Your task to perform on an android device: change text size in settings app Image 0: 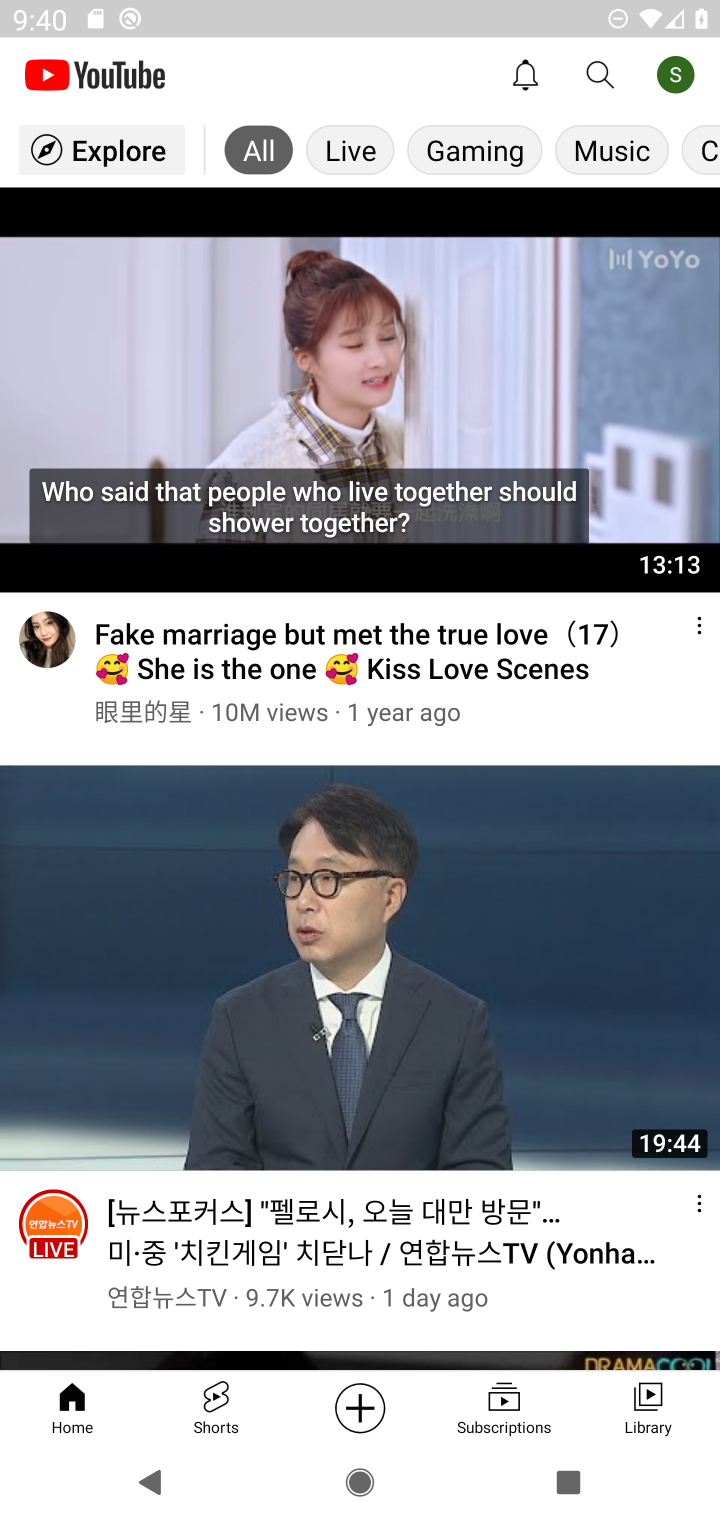
Step 0: press home button
Your task to perform on an android device: change text size in settings app Image 1: 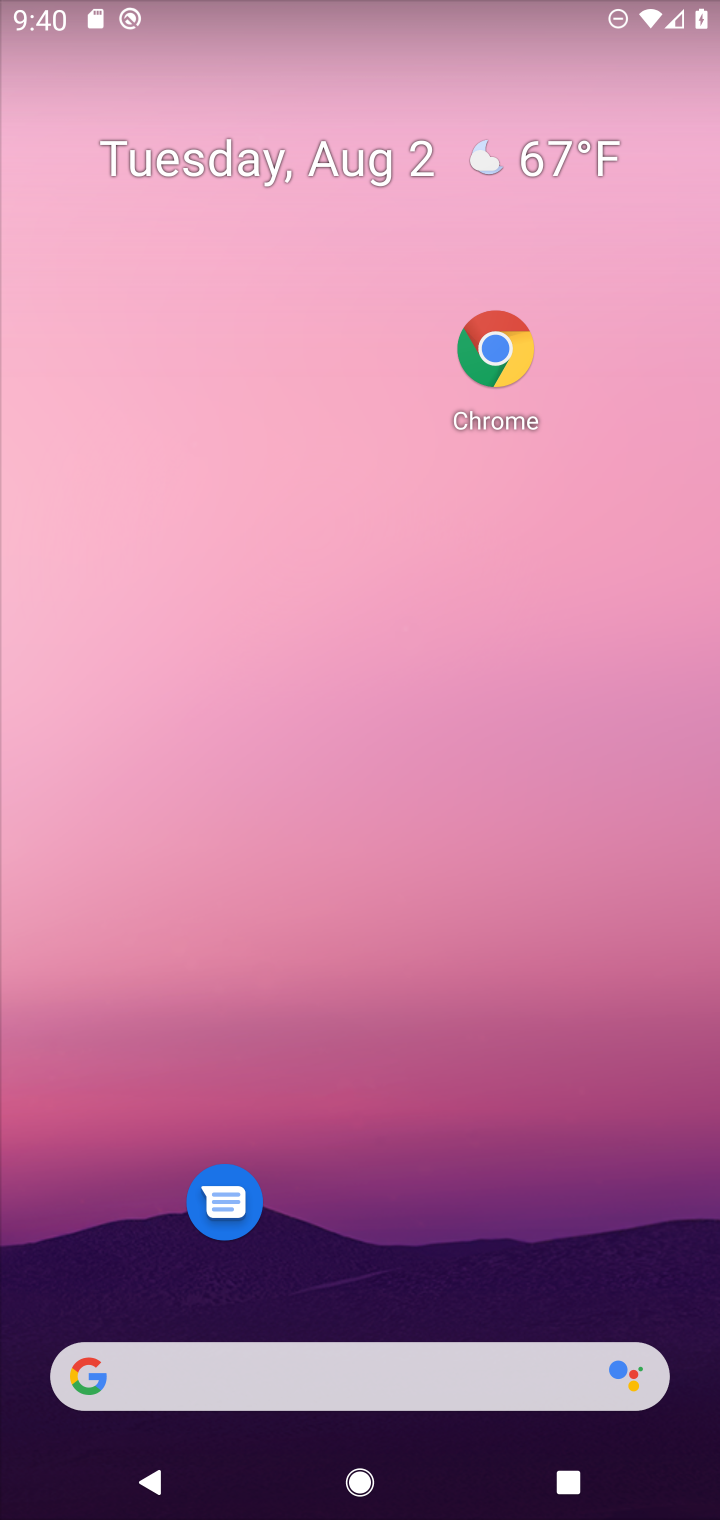
Step 1: drag from (385, 1281) to (396, 212)
Your task to perform on an android device: change text size in settings app Image 2: 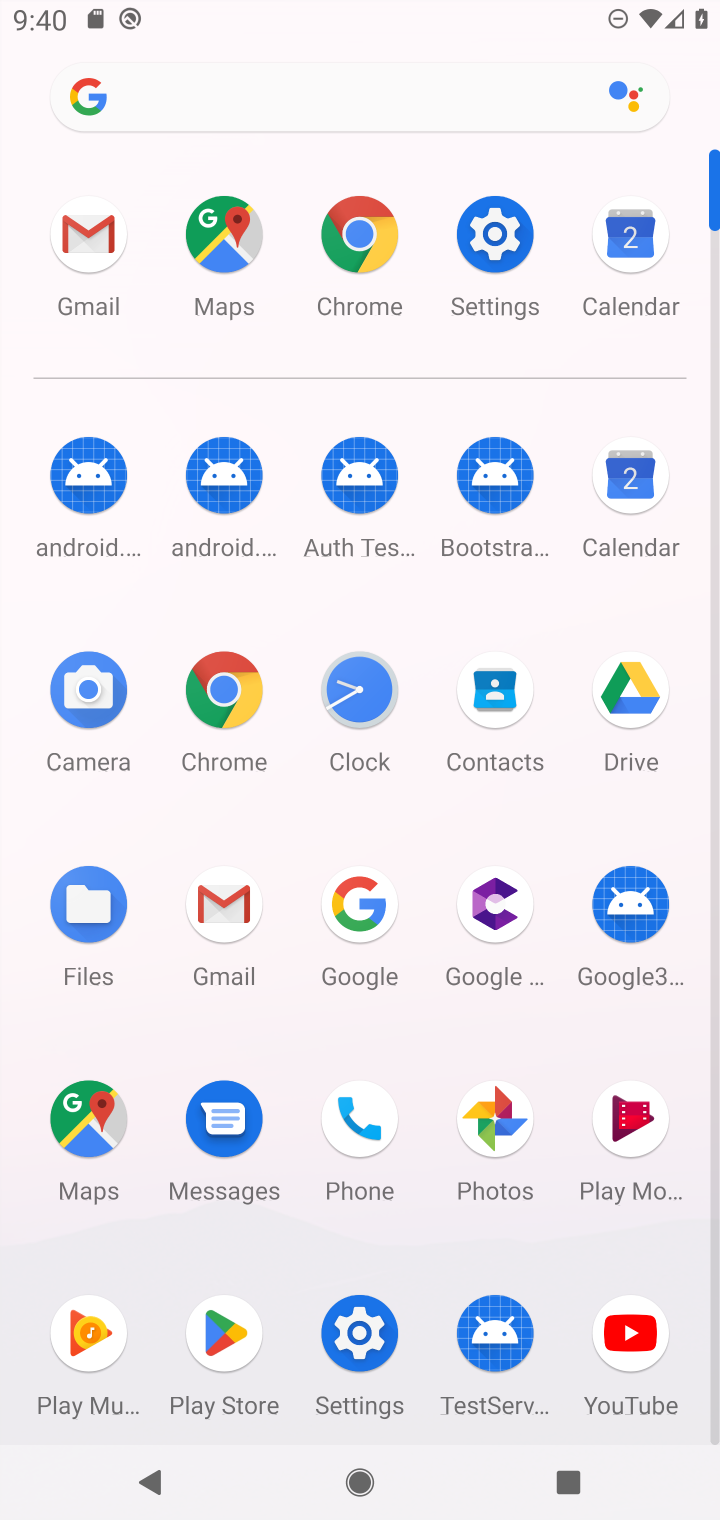
Step 2: click (491, 240)
Your task to perform on an android device: change text size in settings app Image 3: 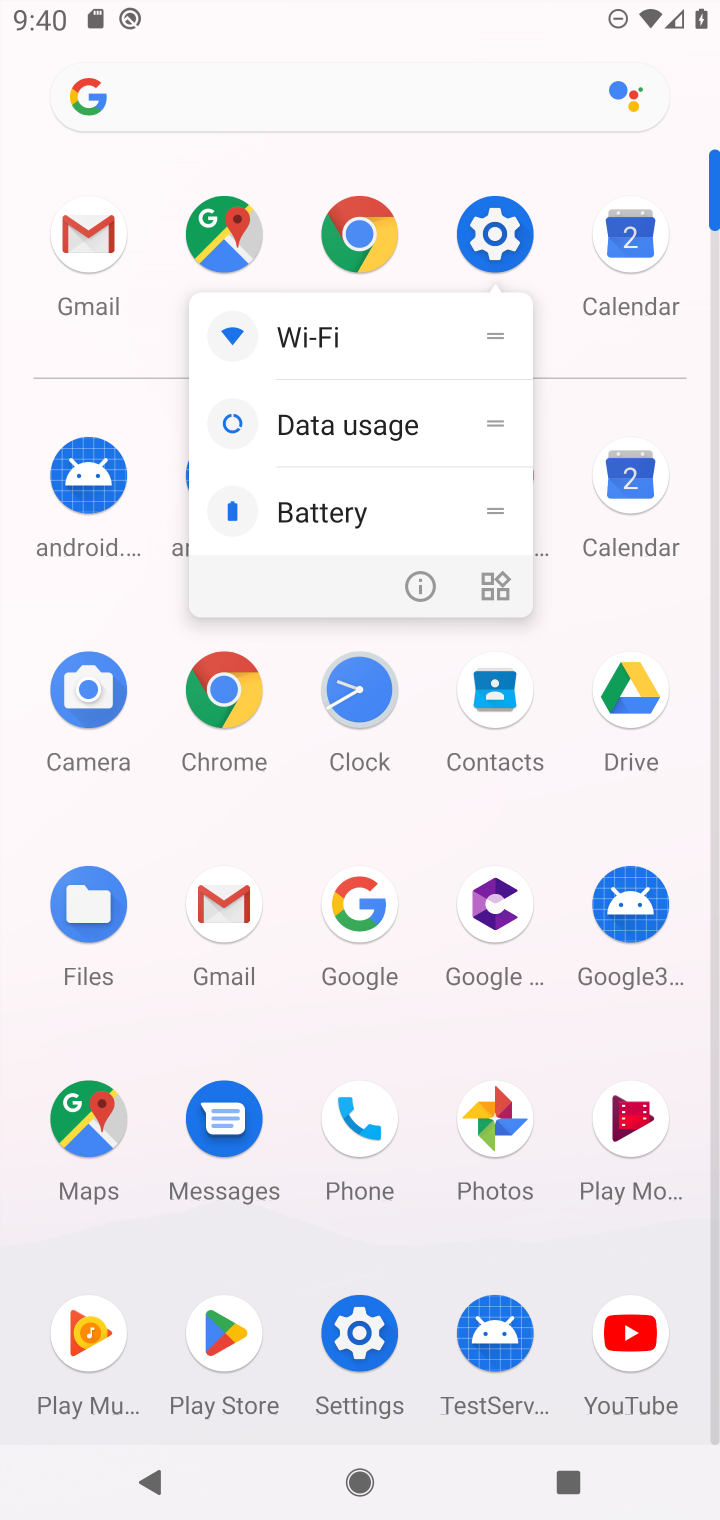
Step 3: click (493, 238)
Your task to perform on an android device: change text size in settings app Image 4: 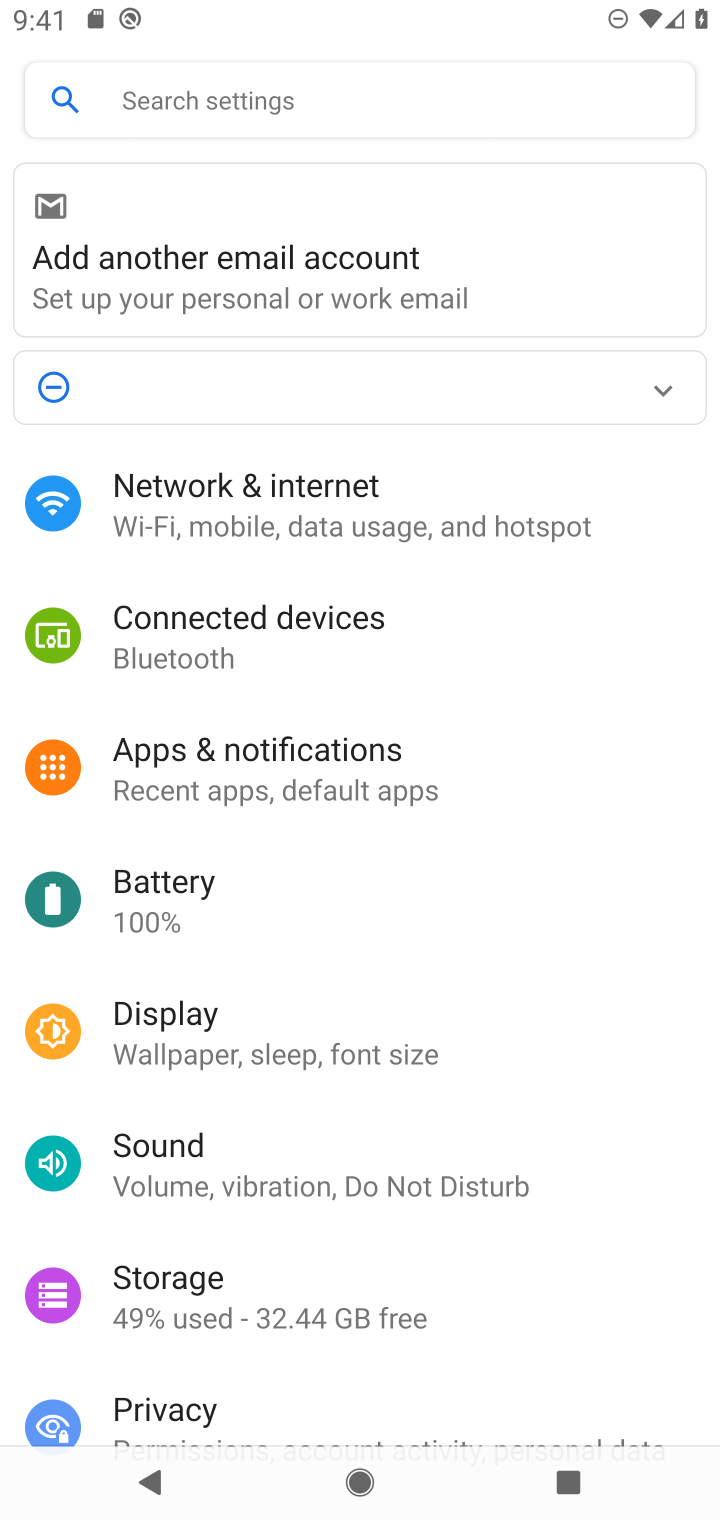
Step 4: click (166, 1036)
Your task to perform on an android device: change text size in settings app Image 5: 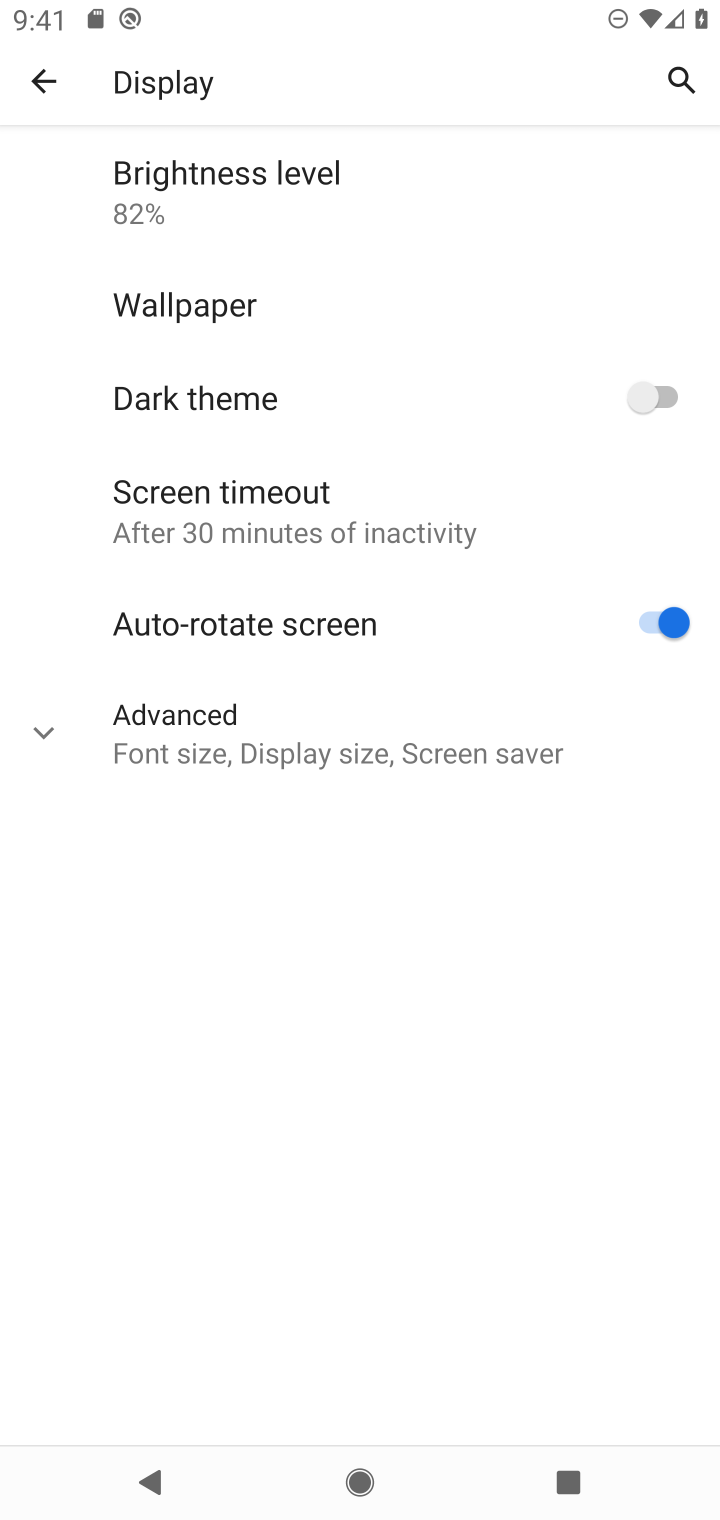
Step 5: click (43, 736)
Your task to perform on an android device: change text size in settings app Image 6: 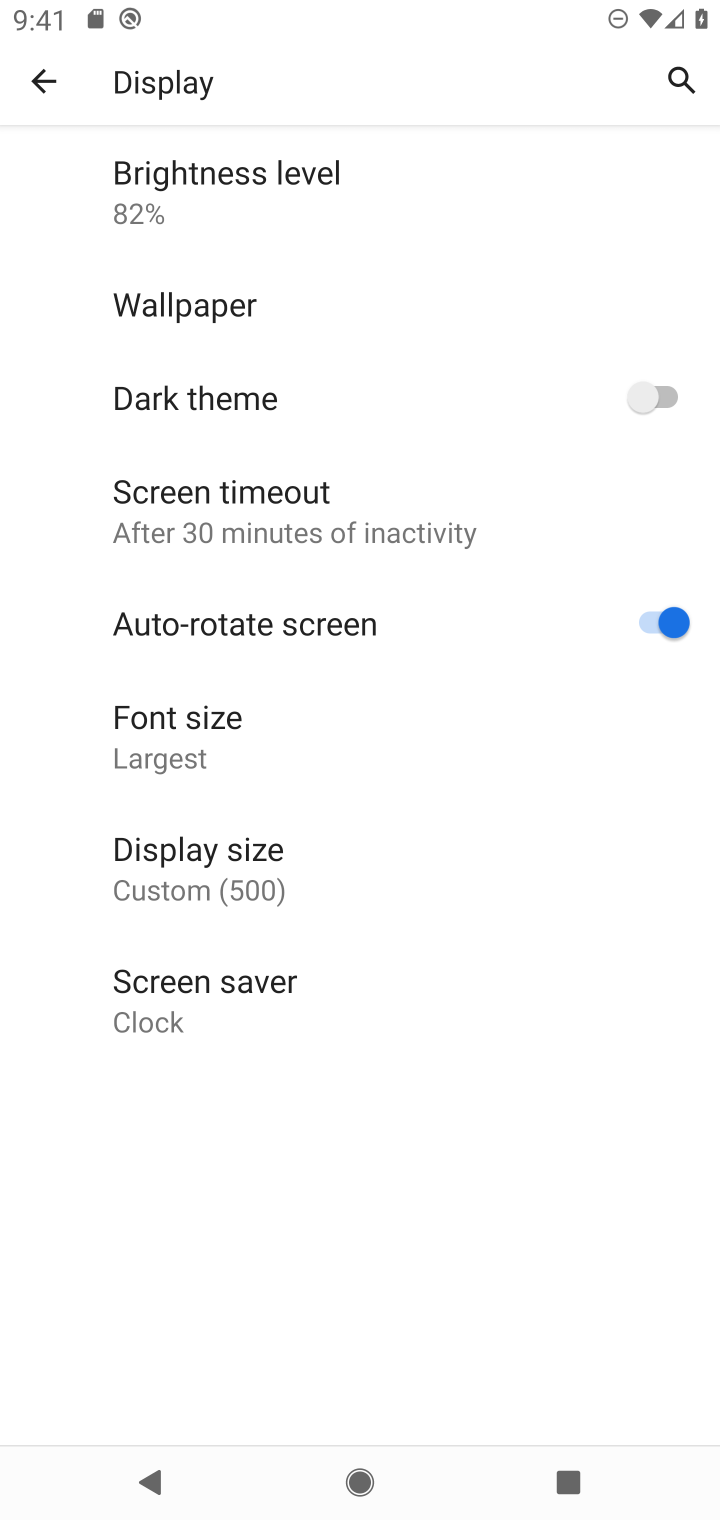
Step 6: click (145, 759)
Your task to perform on an android device: change text size in settings app Image 7: 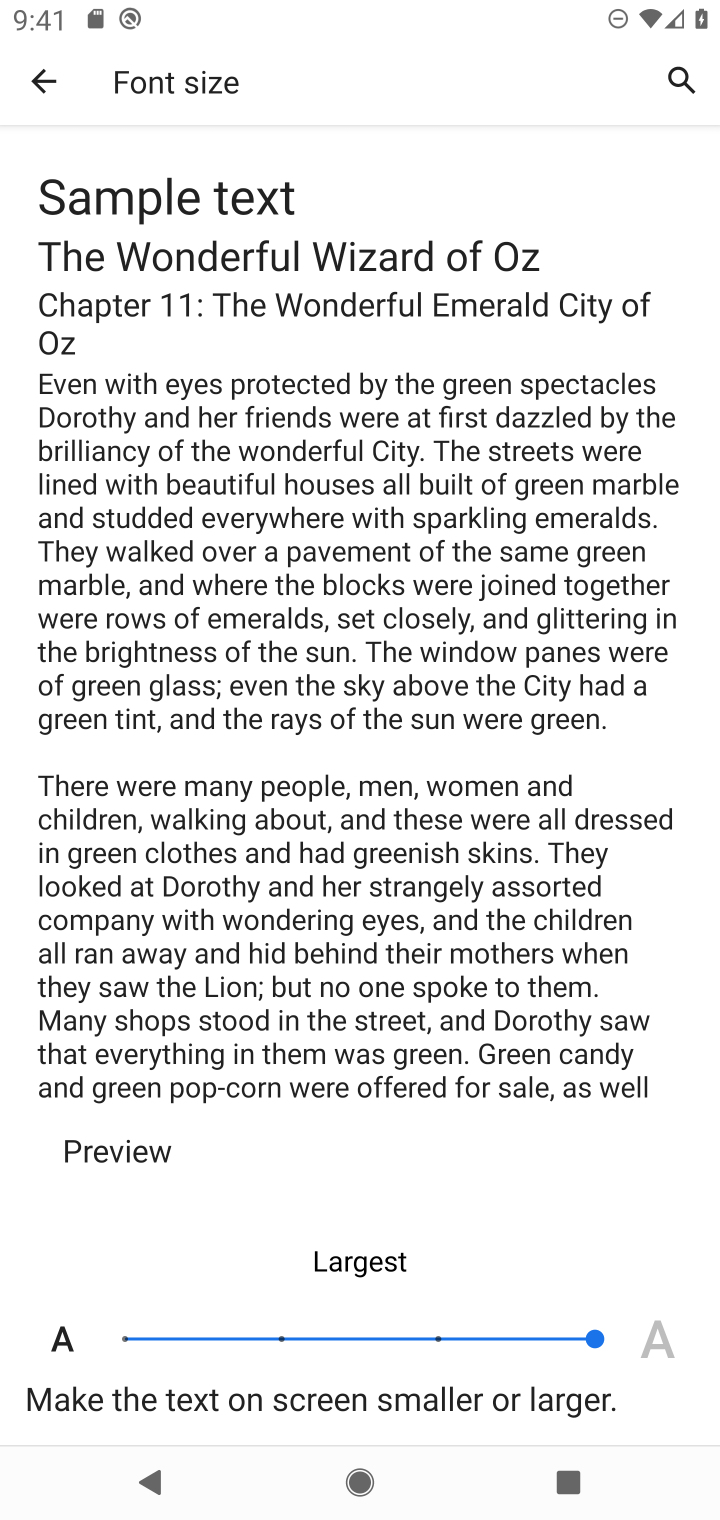
Step 7: click (590, 1339)
Your task to perform on an android device: change text size in settings app Image 8: 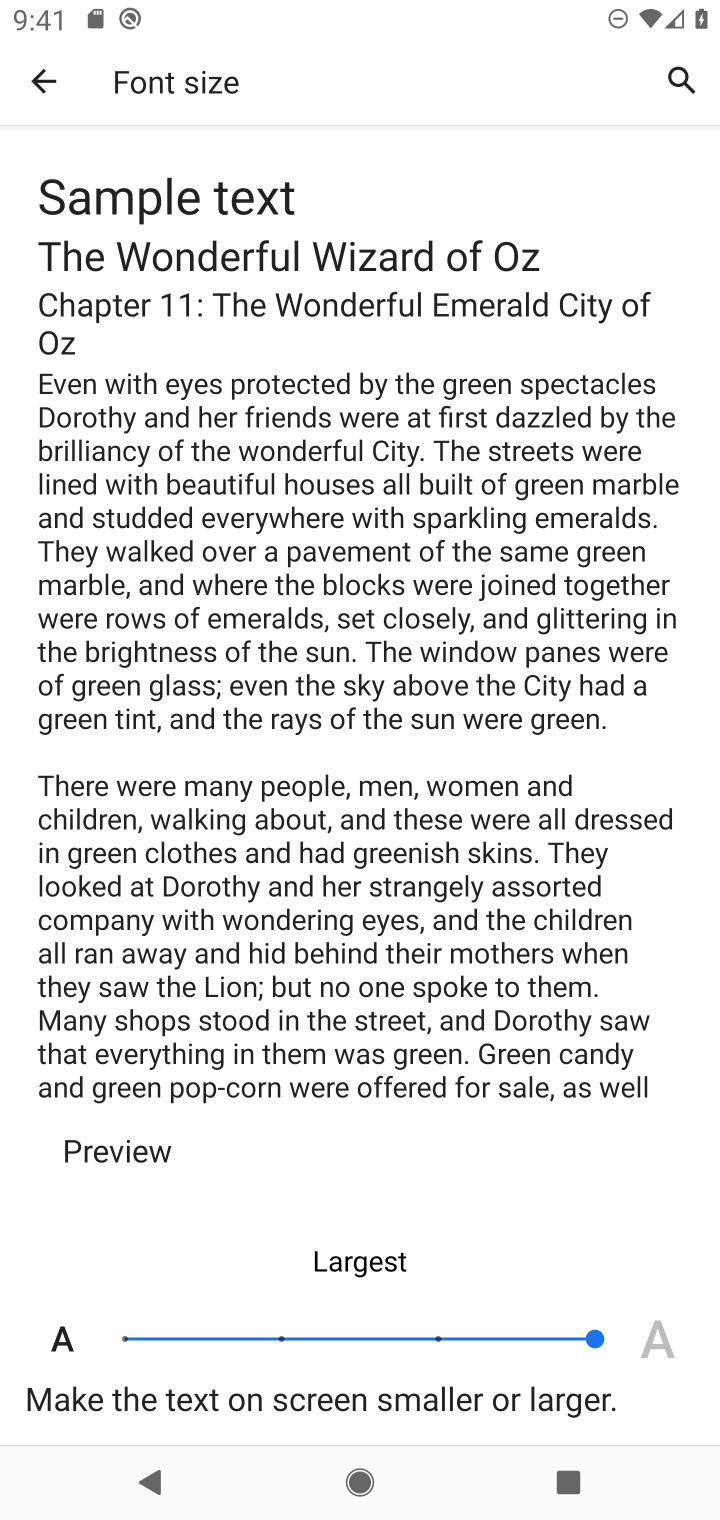
Step 8: click (441, 1352)
Your task to perform on an android device: change text size in settings app Image 9: 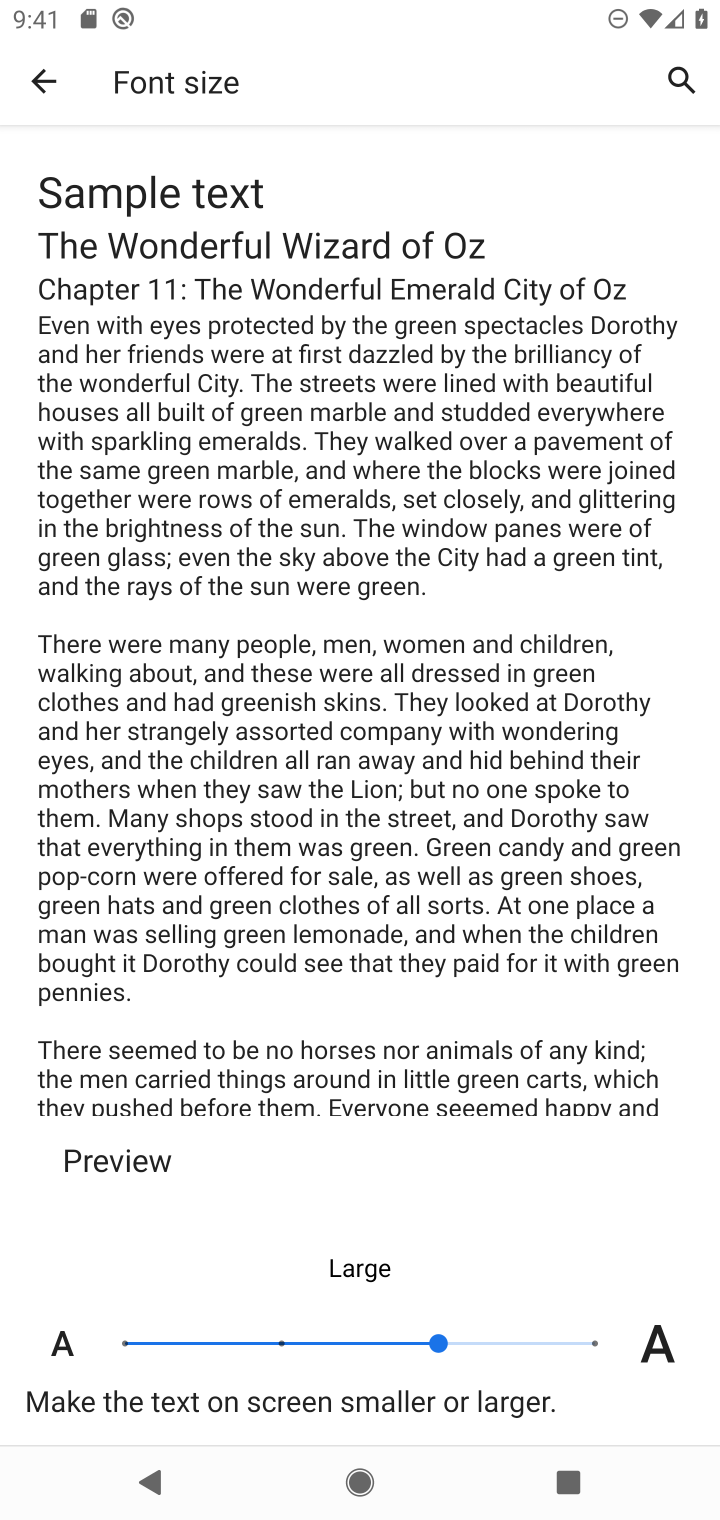
Step 9: task complete